Your task to perform on an android device: Open the phone app and click the voicemail tab. Image 0: 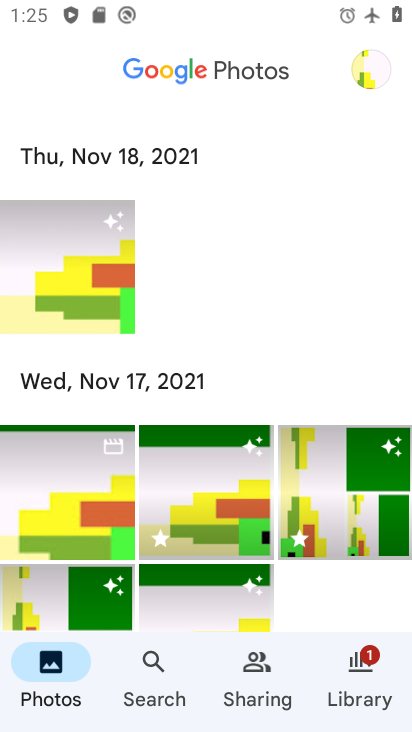
Step 0: press home button
Your task to perform on an android device: Open the phone app and click the voicemail tab. Image 1: 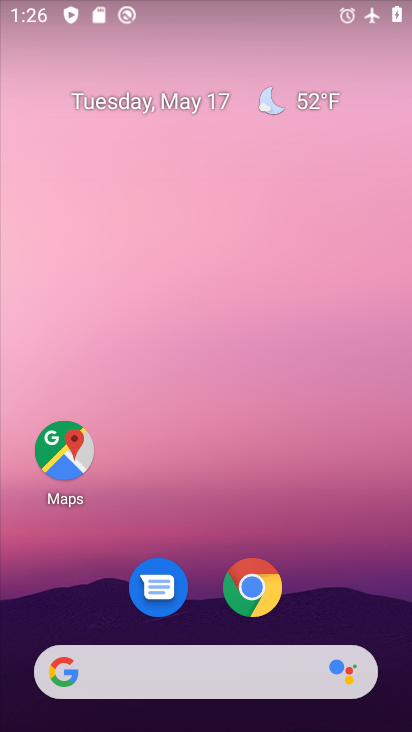
Step 1: drag from (339, 615) to (270, 105)
Your task to perform on an android device: Open the phone app and click the voicemail tab. Image 2: 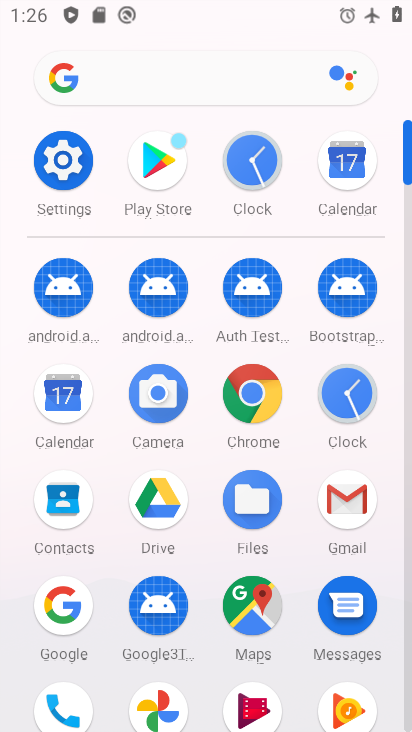
Step 2: click (49, 697)
Your task to perform on an android device: Open the phone app and click the voicemail tab. Image 3: 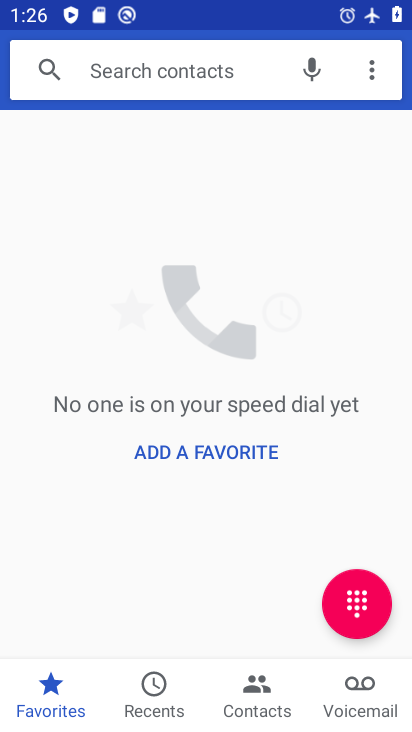
Step 3: click (357, 683)
Your task to perform on an android device: Open the phone app and click the voicemail tab. Image 4: 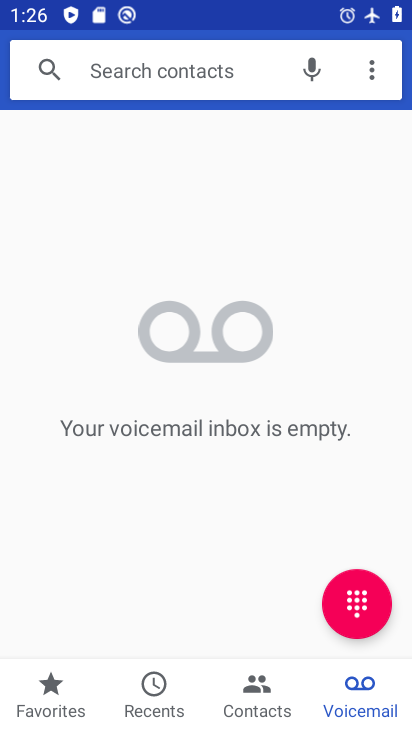
Step 4: task complete